Your task to perform on an android device: manage bookmarks in the chrome app Image 0: 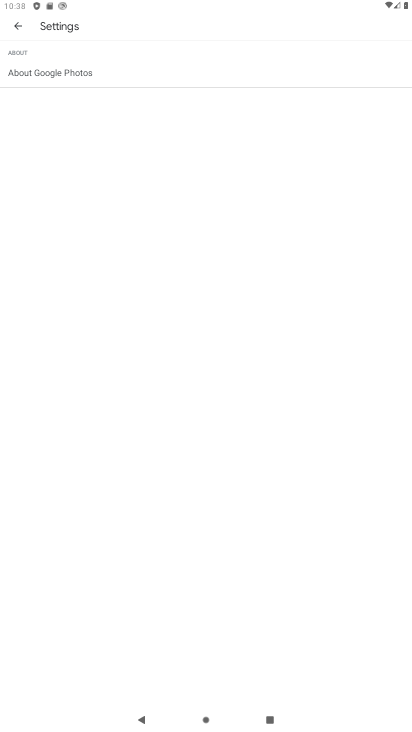
Step 0: press home button
Your task to perform on an android device: manage bookmarks in the chrome app Image 1: 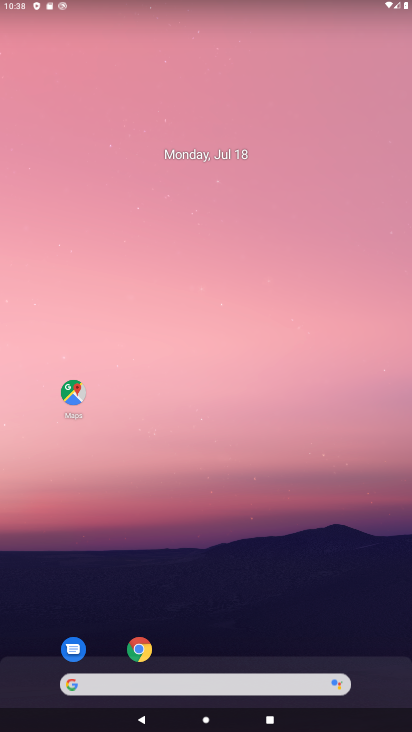
Step 1: drag from (222, 665) to (270, 164)
Your task to perform on an android device: manage bookmarks in the chrome app Image 2: 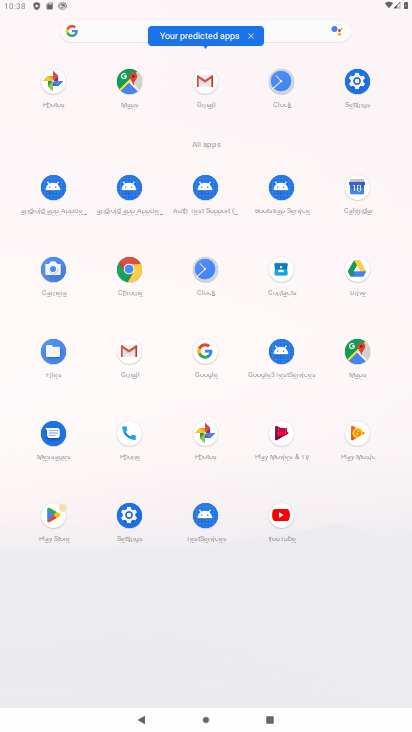
Step 2: click (129, 285)
Your task to perform on an android device: manage bookmarks in the chrome app Image 3: 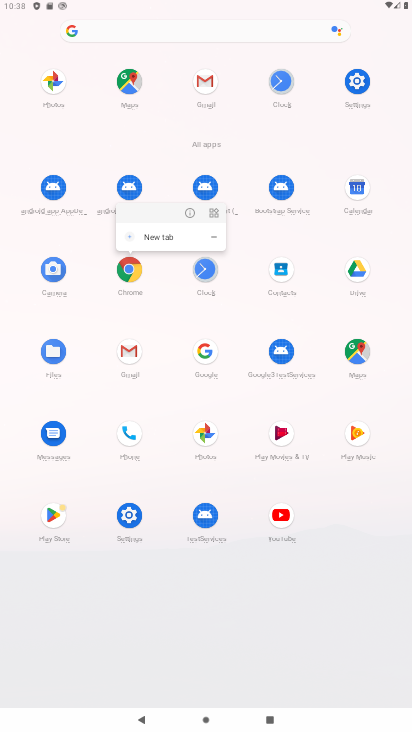
Step 3: click (129, 282)
Your task to perform on an android device: manage bookmarks in the chrome app Image 4: 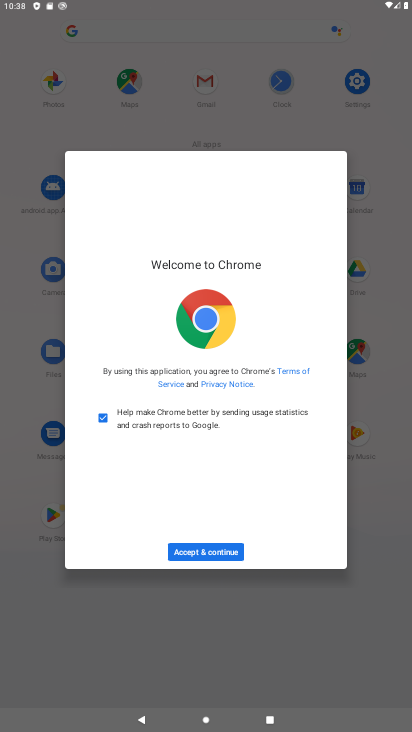
Step 4: click (215, 555)
Your task to perform on an android device: manage bookmarks in the chrome app Image 5: 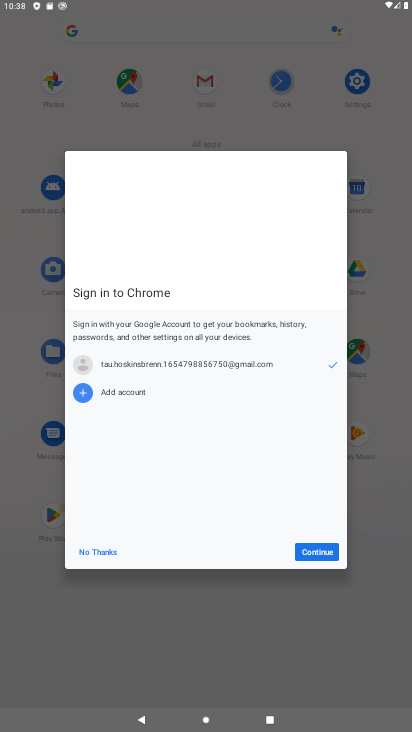
Step 5: click (323, 555)
Your task to perform on an android device: manage bookmarks in the chrome app Image 6: 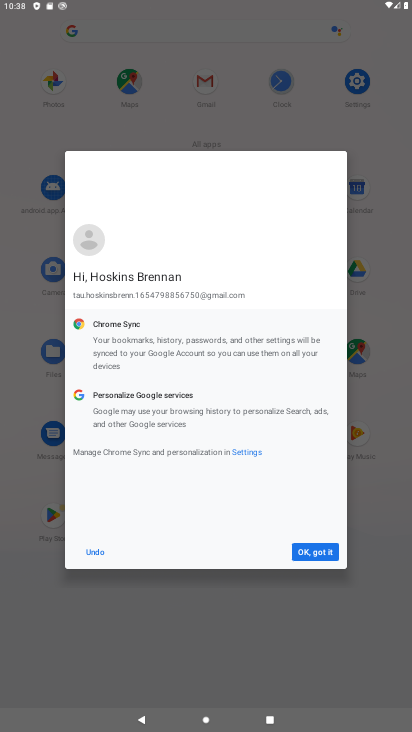
Step 6: click (323, 555)
Your task to perform on an android device: manage bookmarks in the chrome app Image 7: 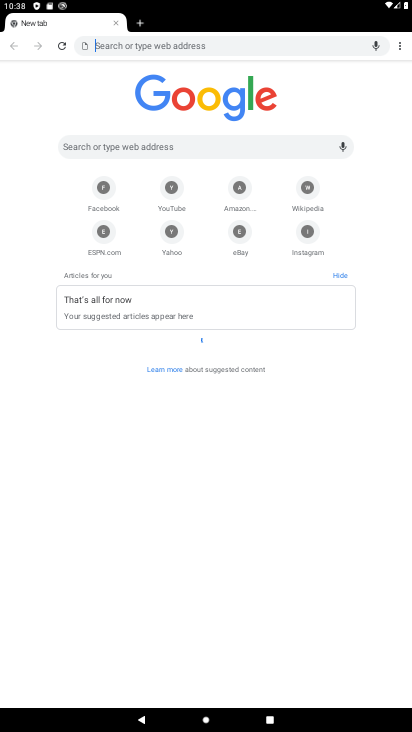
Step 7: drag from (395, 50) to (357, 90)
Your task to perform on an android device: manage bookmarks in the chrome app Image 8: 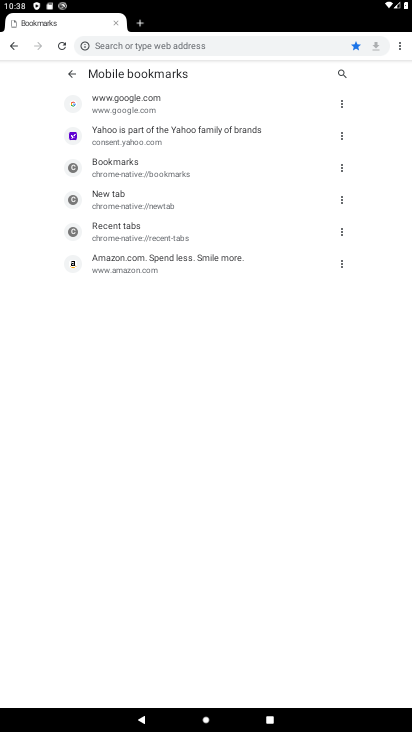
Step 8: click (187, 106)
Your task to perform on an android device: manage bookmarks in the chrome app Image 9: 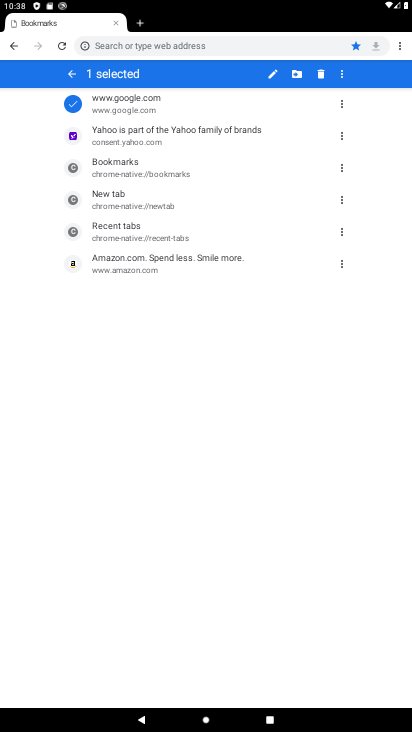
Step 9: click (187, 132)
Your task to perform on an android device: manage bookmarks in the chrome app Image 10: 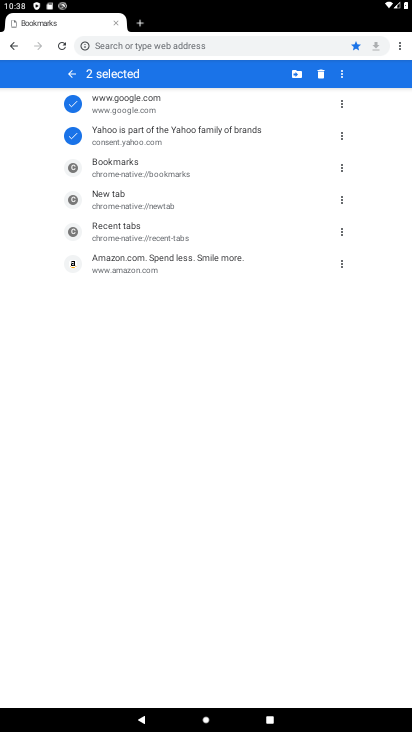
Step 10: click (156, 172)
Your task to perform on an android device: manage bookmarks in the chrome app Image 11: 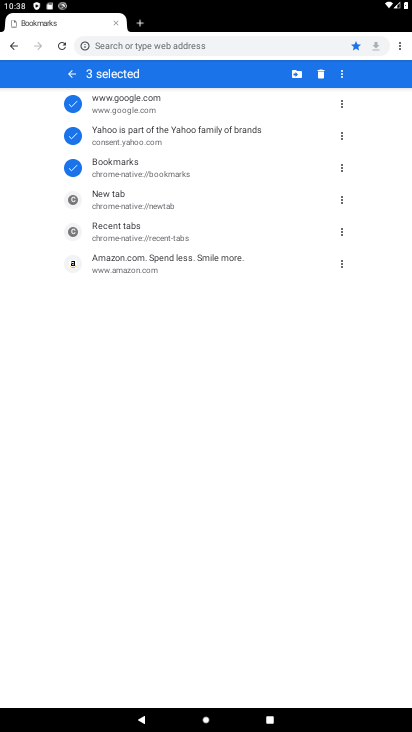
Step 11: click (151, 206)
Your task to perform on an android device: manage bookmarks in the chrome app Image 12: 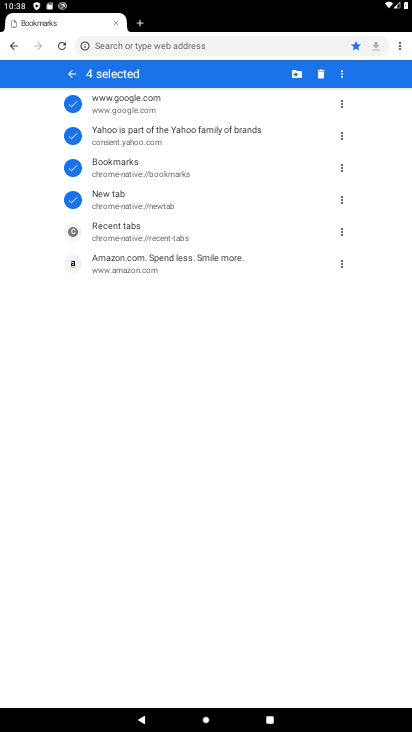
Step 12: click (151, 241)
Your task to perform on an android device: manage bookmarks in the chrome app Image 13: 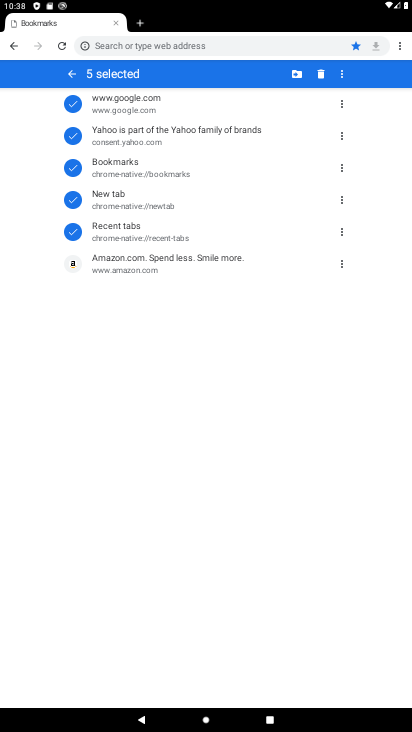
Step 13: click (158, 264)
Your task to perform on an android device: manage bookmarks in the chrome app Image 14: 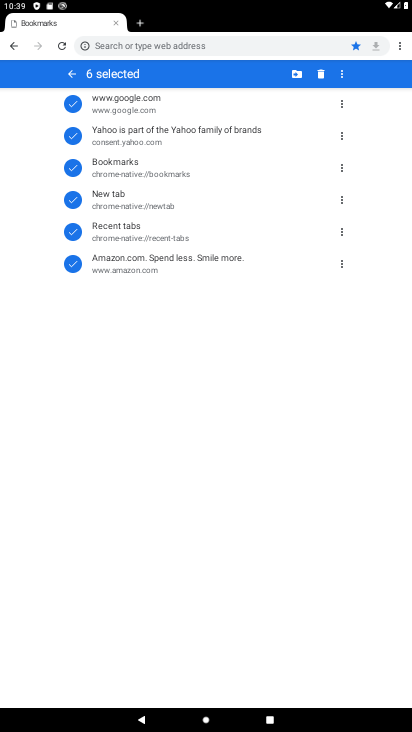
Step 14: click (297, 66)
Your task to perform on an android device: manage bookmarks in the chrome app Image 15: 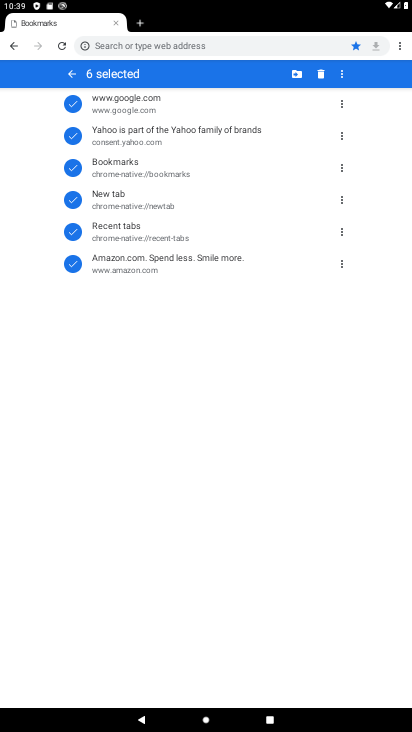
Step 15: click (296, 79)
Your task to perform on an android device: manage bookmarks in the chrome app Image 16: 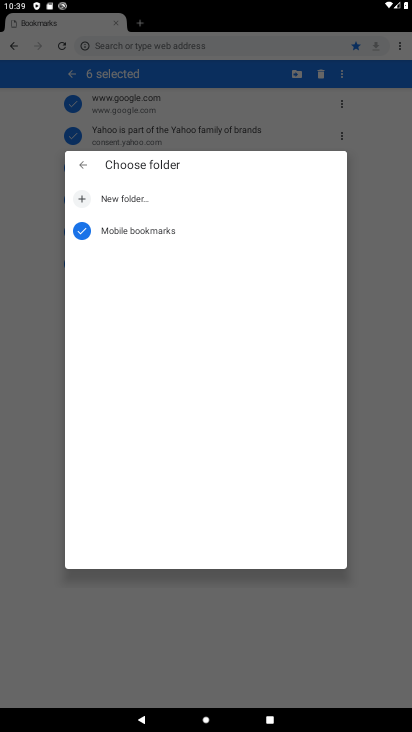
Step 16: click (214, 203)
Your task to perform on an android device: manage bookmarks in the chrome app Image 17: 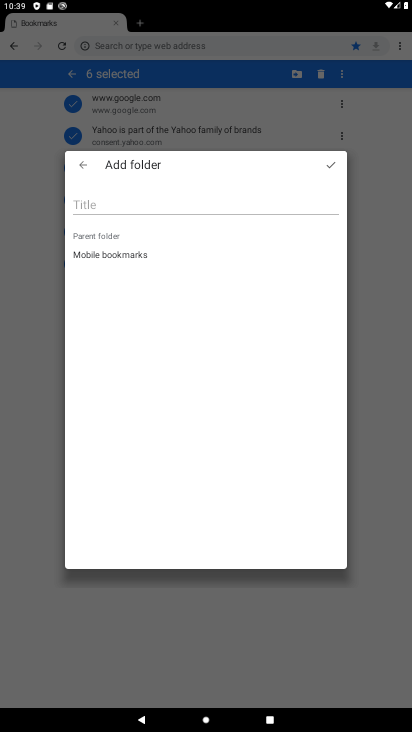
Step 17: type "xsxsxs"
Your task to perform on an android device: manage bookmarks in the chrome app Image 18: 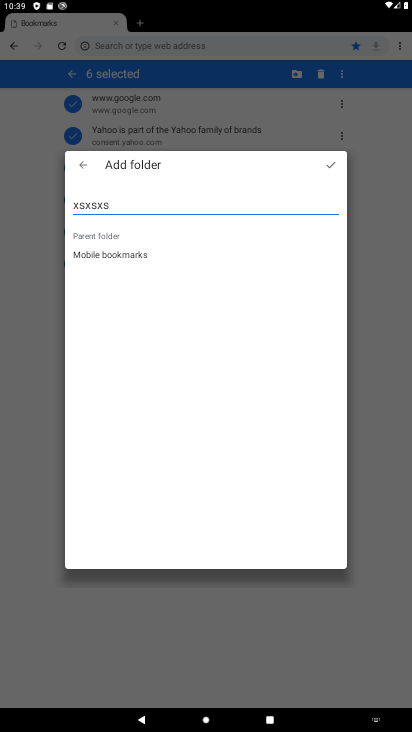
Step 18: click (340, 159)
Your task to perform on an android device: manage bookmarks in the chrome app Image 19: 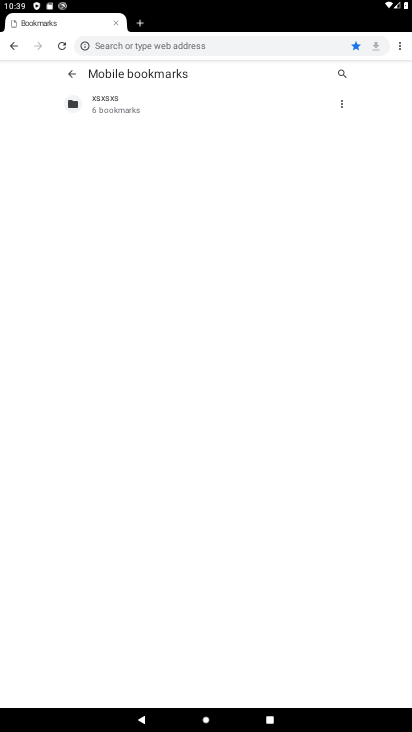
Step 19: task complete